Your task to perform on an android device: Open Chrome and go to the settings page Image 0: 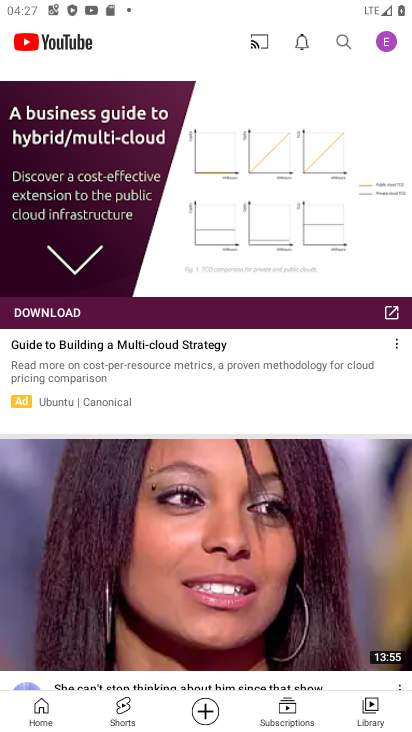
Step 0: press home button
Your task to perform on an android device: Open Chrome and go to the settings page Image 1: 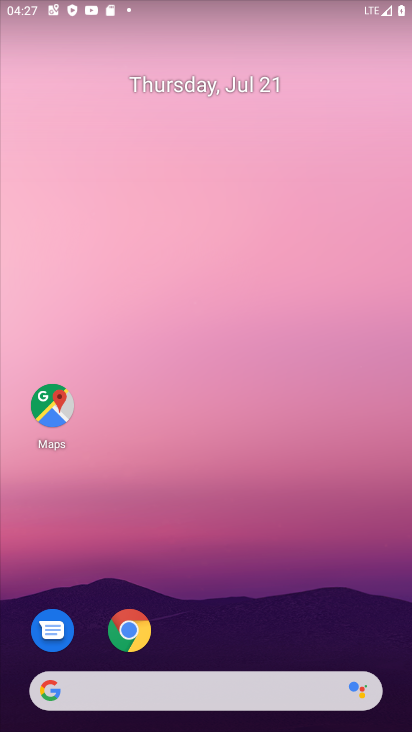
Step 1: click (115, 617)
Your task to perform on an android device: Open Chrome and go to the settings page Image 2: 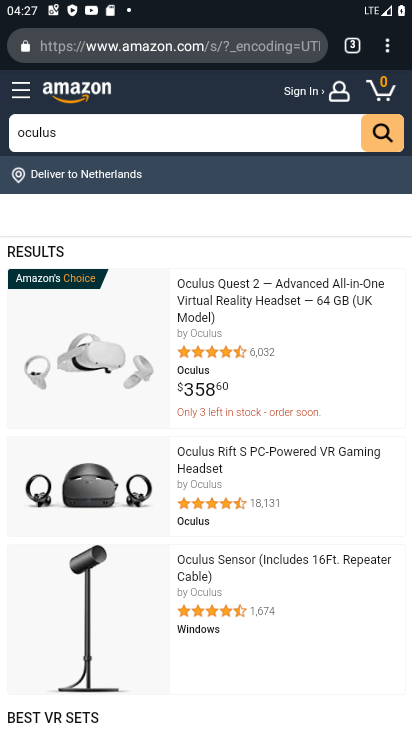
Step 2: click (387, 51)
Your task to perform on an android device: Open Chrome and go to the settings page Image 3: 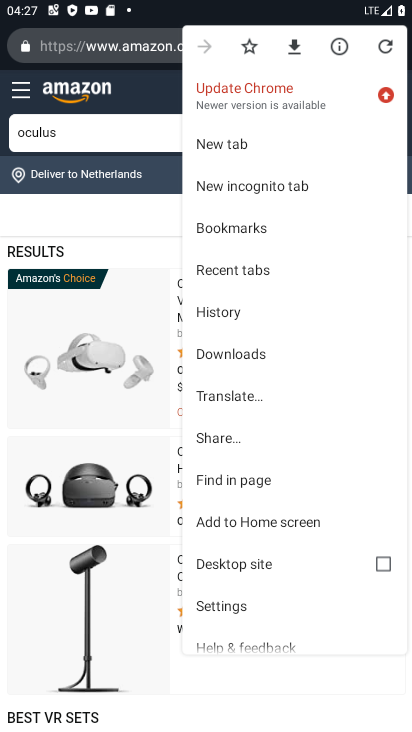
Step 3: click (255, 612)
Your task to perform on an android device: Open Chrome and go to the settings page Image 4: 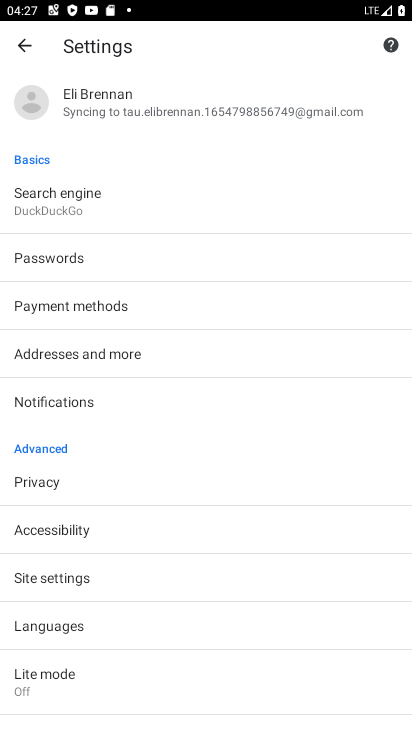
Step 4: task complete